Your task to perform on an android device: toggle improve location accuracy Image 0: 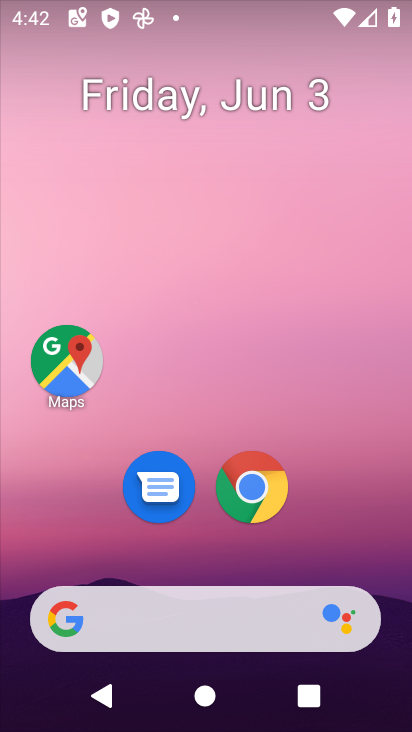
Step 0: drag from (225, 484) to (276, 7)
Your task to perform on an android device: toggle improve location accuracy Image 1: 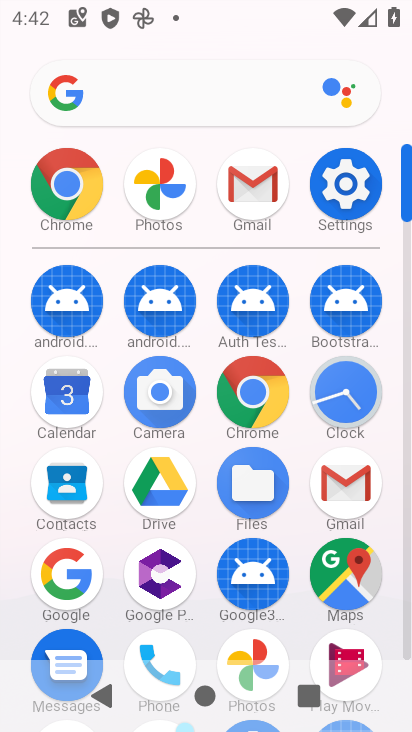
Step 1: click (359, 179)
Your task to perform on an android device: toggle improve location accuracy Image 2: 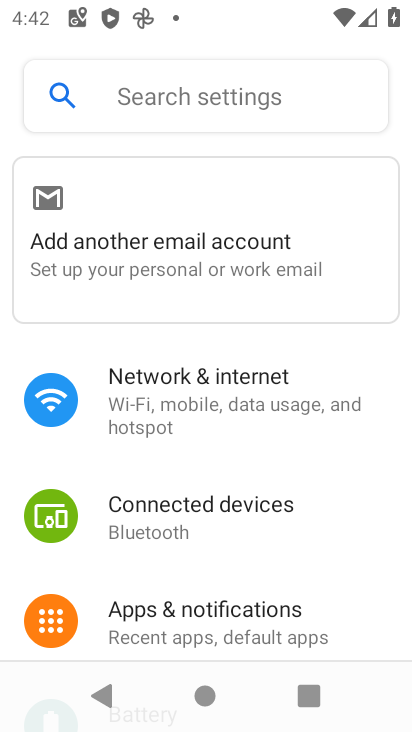
Step 2: drag from (192, 565) to (327, 61)
Your task to perform on an android device: toggle improve location accuracy Image 3: 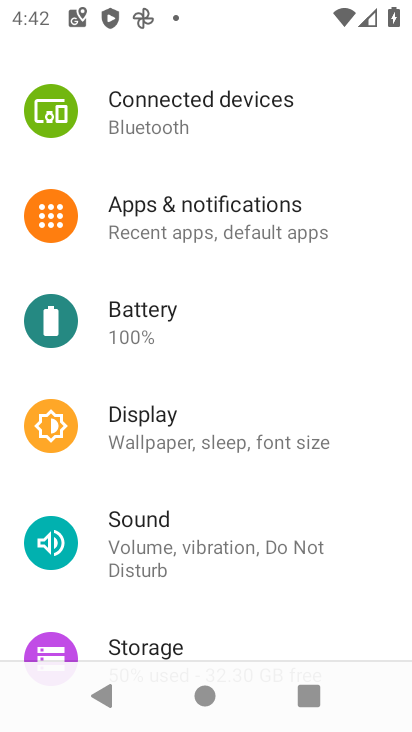
Step 3: drag from (222, 604) to (397, 175)
Your task to perform on an android device: toggle improve location accuracy Image 4: 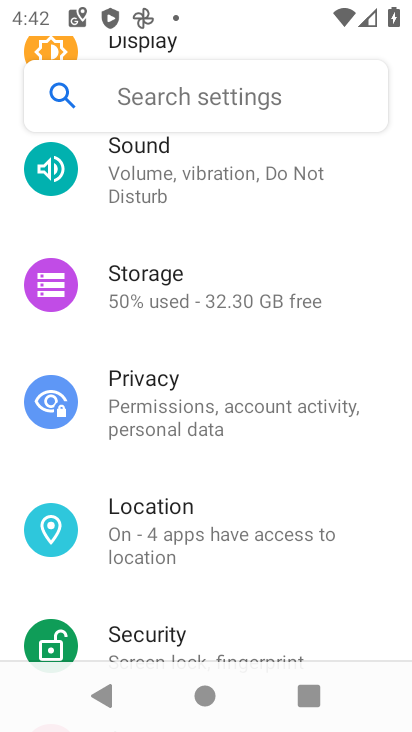
Step 4: click (160, 508)
Your task to perform on an android device: toggle improve location accuracy Image 5: 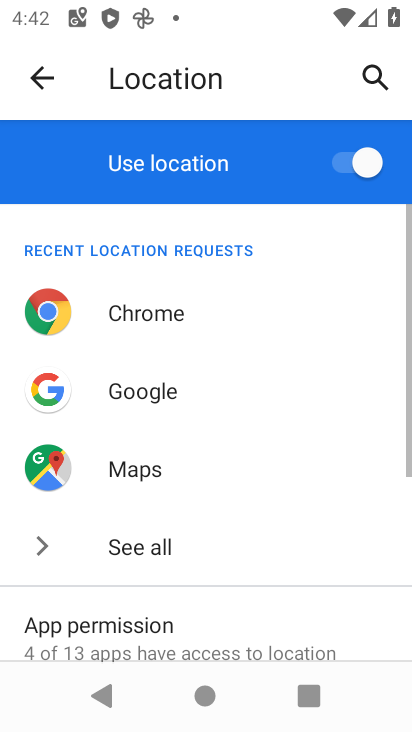
Step 5: drag from (216, 546) to (304, 65)
Your task to perform on an android device: toggle improve location accuracy Image 6: 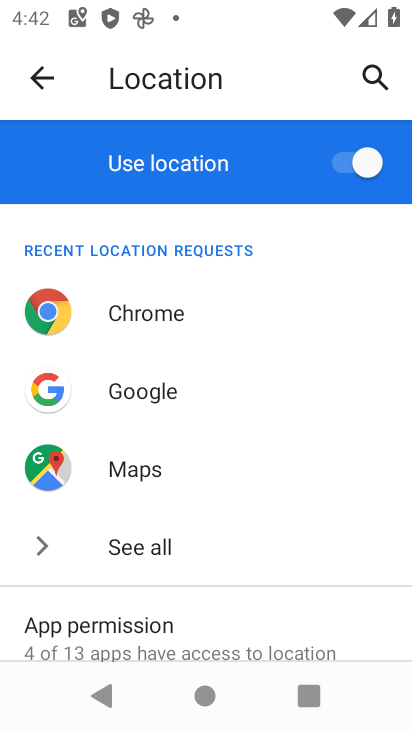
Step 6: drag from (136, 620) to (272, 220)
Your task to perform on an android device: toggle improve location accuracy Image 7: 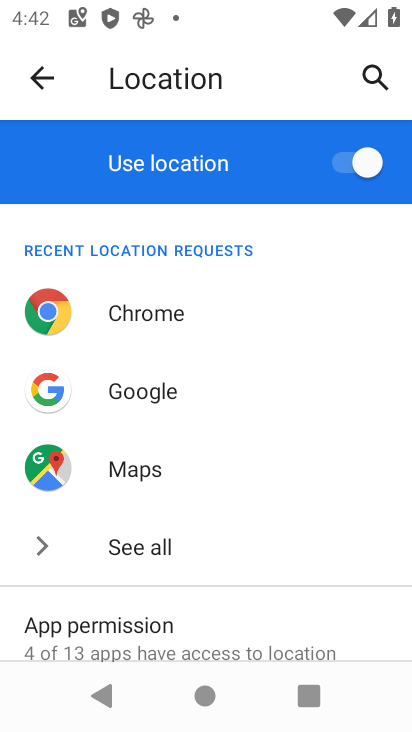
Step 7: drag from (260, 604) to (281, 141)
Your task to perform on an android device: toggle improve location accuracy Image 8: 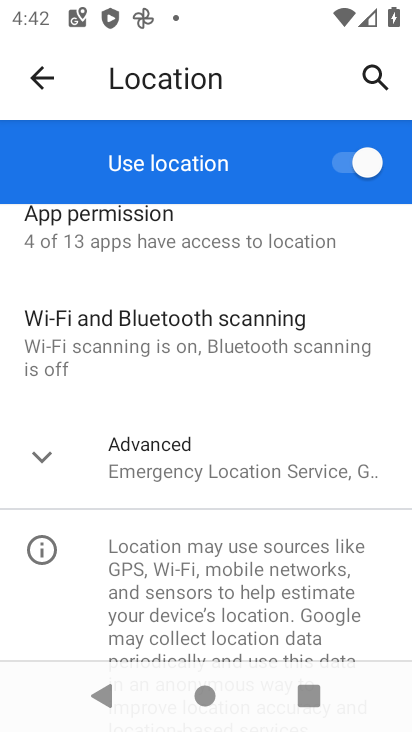
Step 8: click (23, 424)
Your task to perform on an android device: toggle improve location accuracy Image 9: 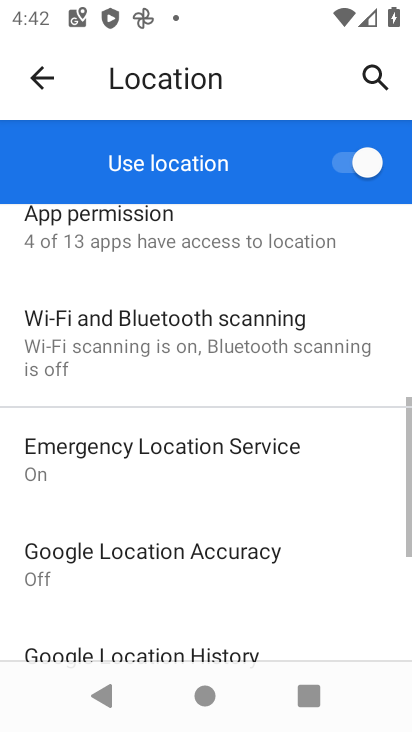
Step 9: drag from (116, 548) to (169, 154)
Your task to perform on an android device: toggle improve location accuracy Image 10: 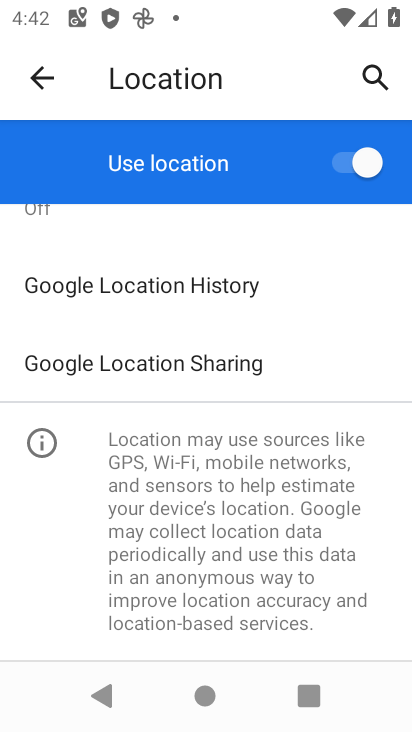
Step 10: drag from (134, 323) to (226, 582)
Your task to perform on an android device: toggle improve location accuracy Image 11: 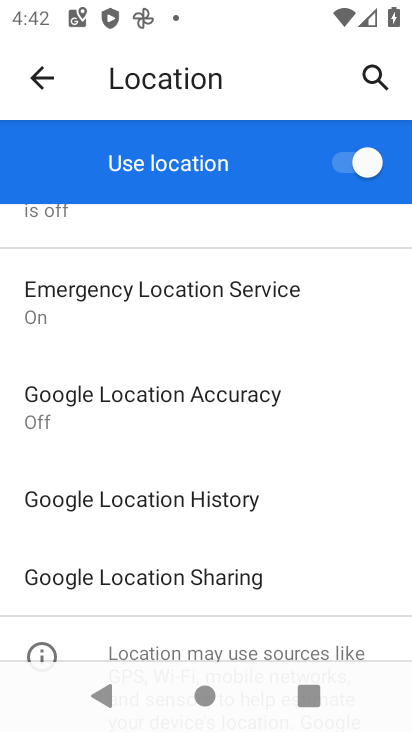
Step 11: click (183, 407)
Your task to perform on an android device: toggle improve location accuracy Image 12: 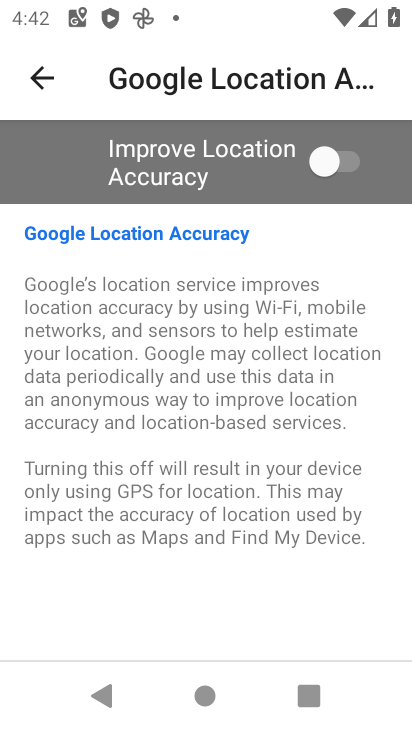
Step 12: click (339, 161)
Your task to perform on an android device: toggle improve location accuracy Image 13: 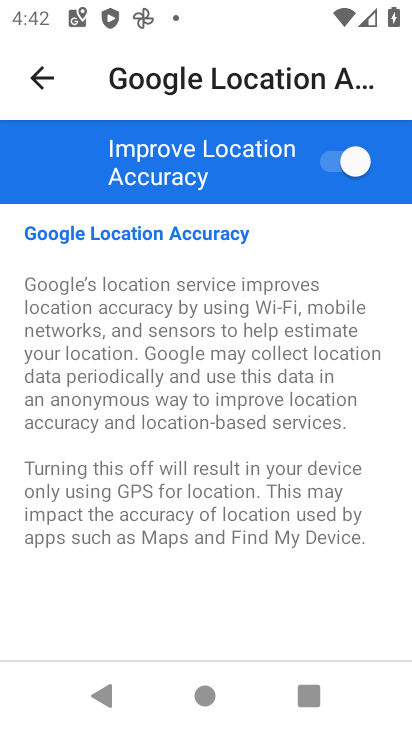
Step 13: task complete